Your task to perform on an android device: turn off wifi Image 0: 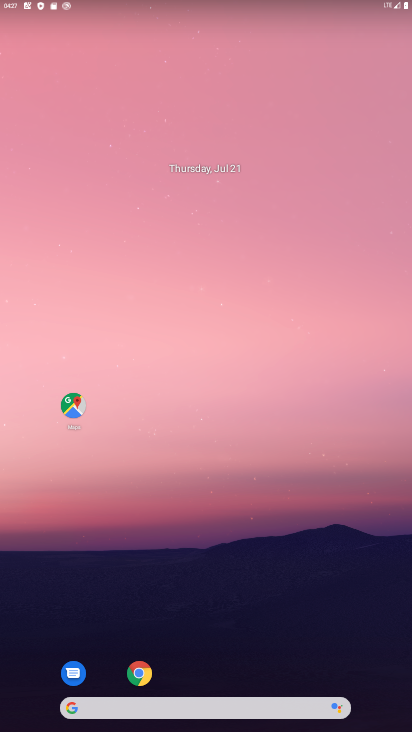
Step 0: drag from (186, 632) to (257, 105)
Your task to perform on an android device: turn off wifi Image 1: 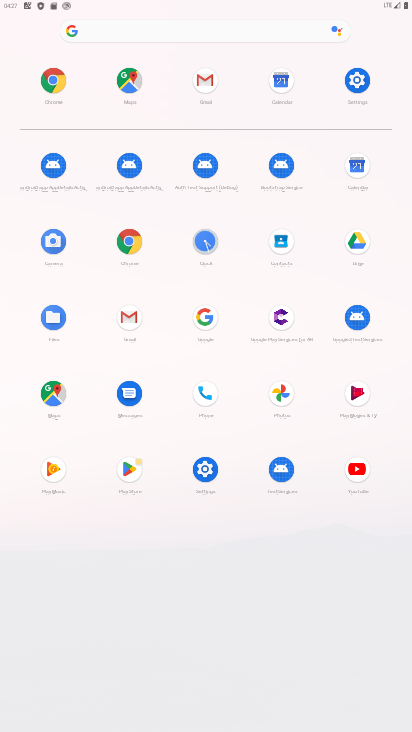
Step 1: click (356, 87)
Your task to perform on an android device: turn off wifi Image 2: 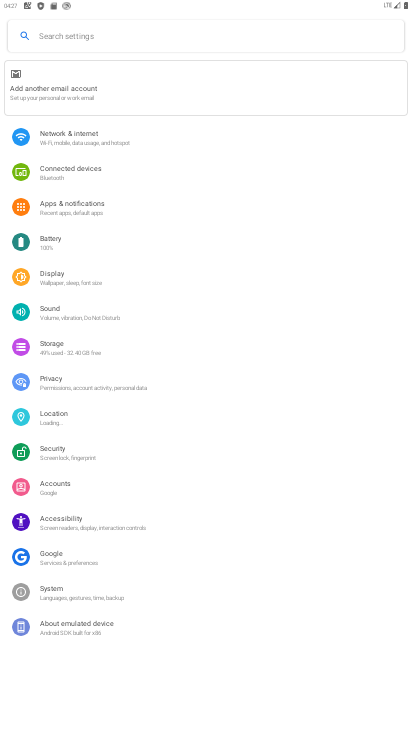
Step 2: click (85, 144)
Your task to perform on an android device: turn off wifi Image 3: 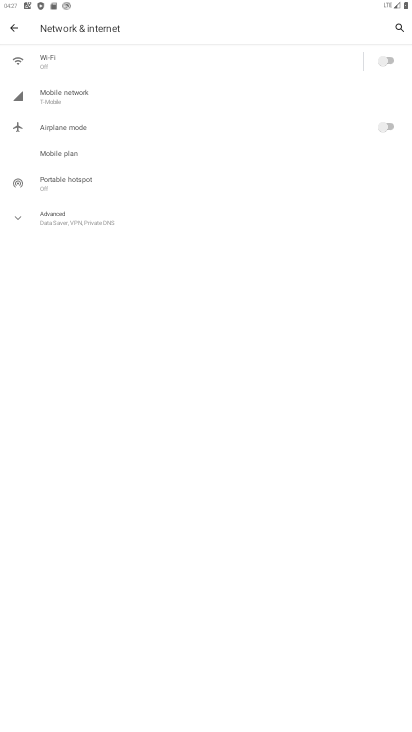
Step 3: task complete